Your task to perform on an android device: Go to Amazon Image 0: 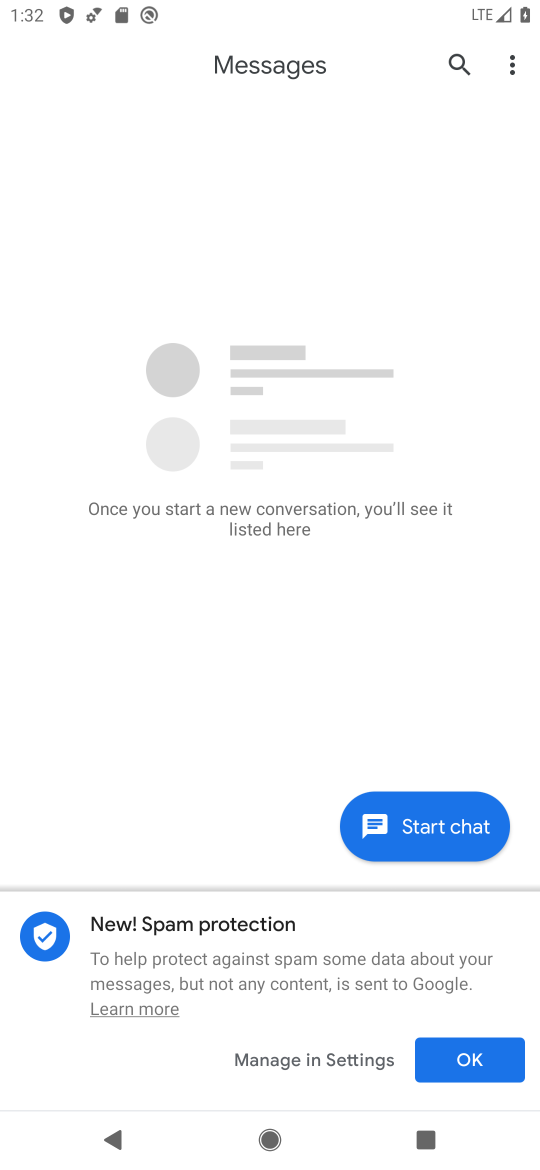
Step 0: press home button
Your task to perform on an android device: Go to Amazon Image 1: 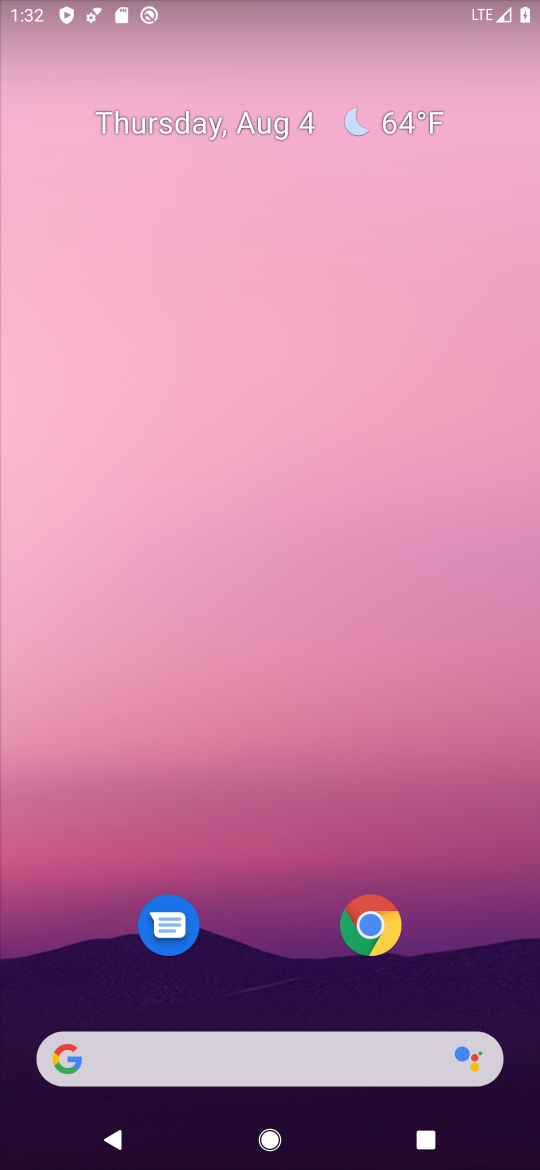
Step 1: click (377, 938)
Your task to perform on an android device: Go to Amazon Image 2: 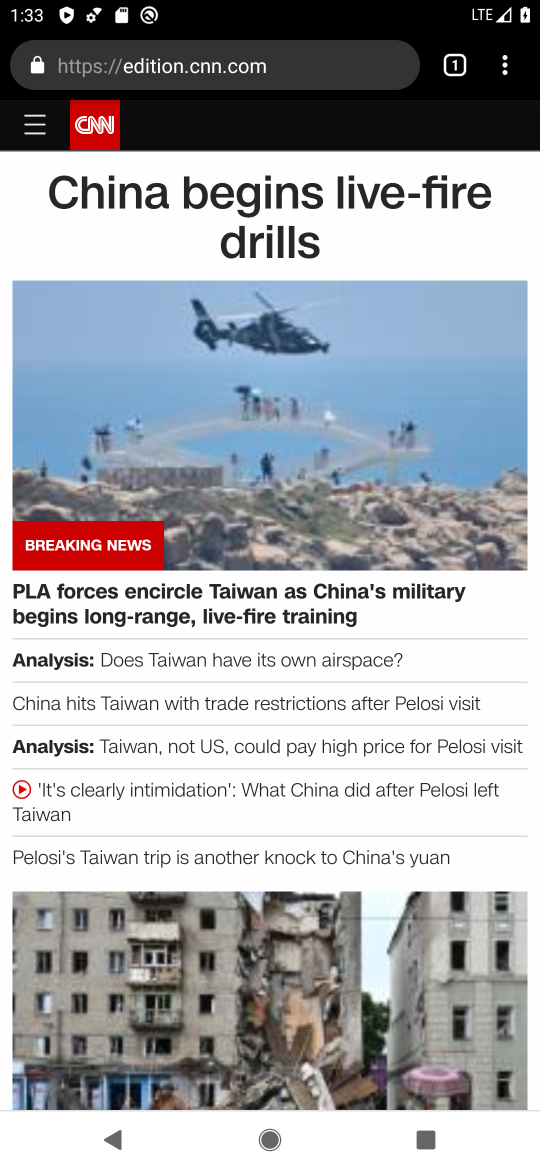
Step 2: click (450, 76)
Your task to perform on an android device: Go to Amazon Image 3: 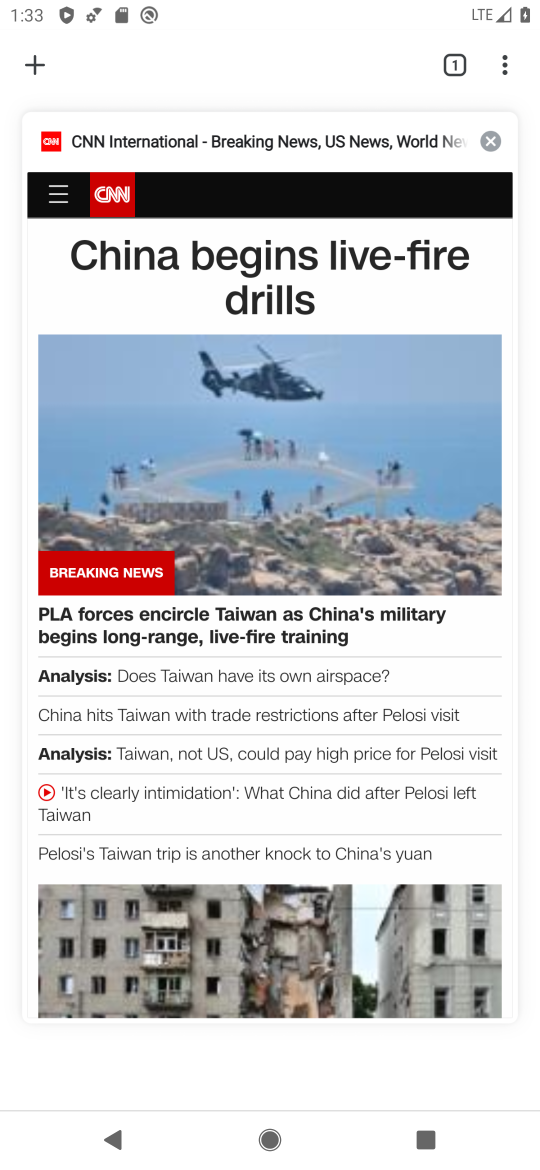
Step 3: click (27, 61)
Your task to perform on an android device: Go to Amazon Image 4: 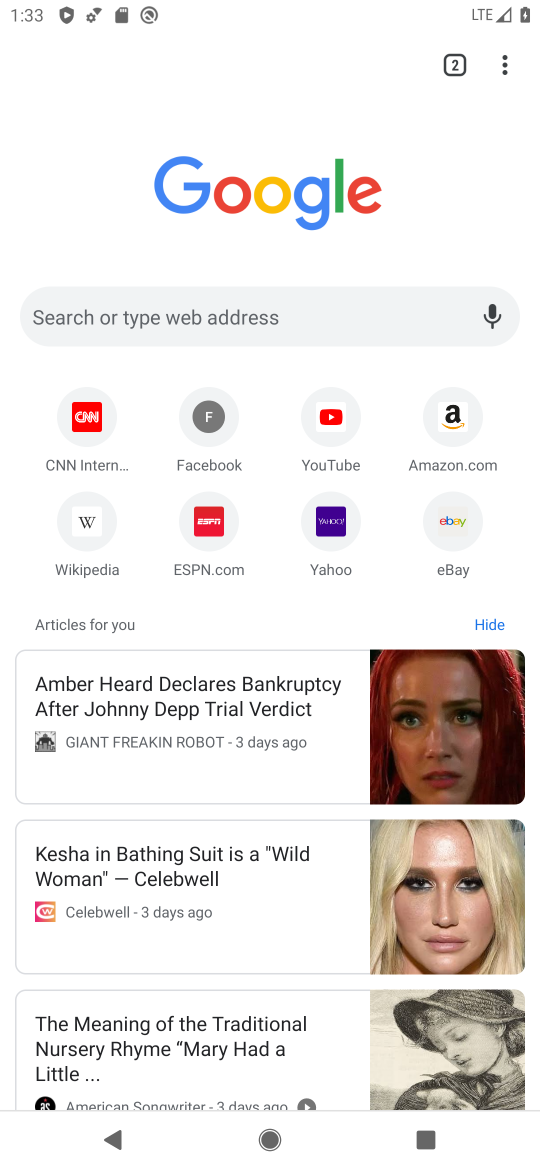
Step 4: click (447, 428)
Your task to perform on an android device: Go to Amazon Image 5: 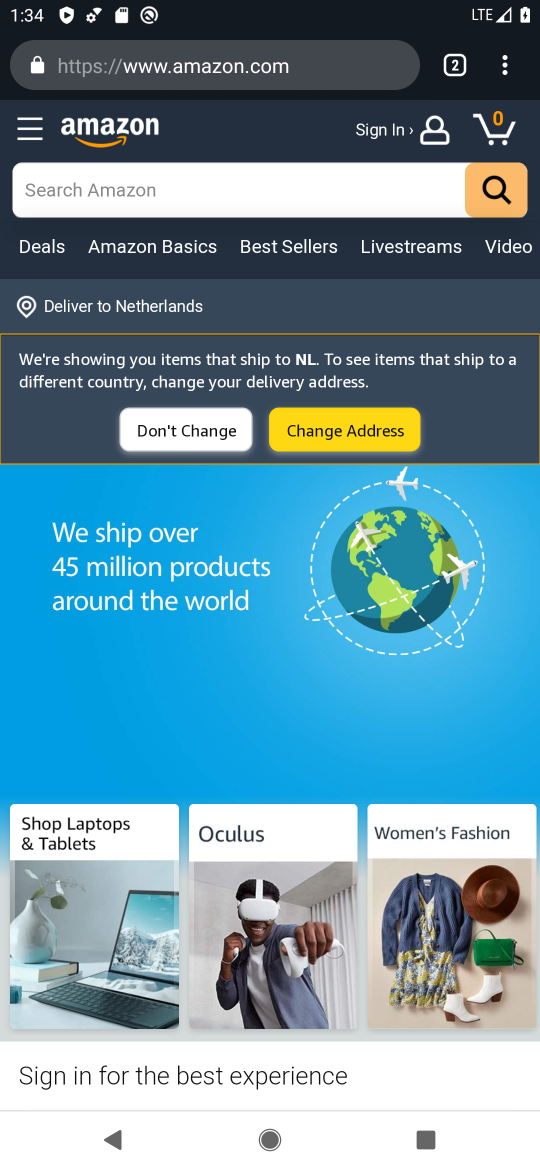
Step 5: task complete